Your task to perform on an android device: stop showing notifications on the lock screen Image 0: 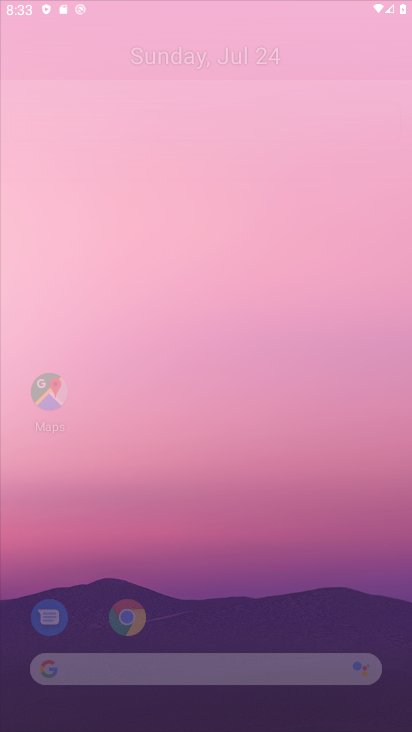
Step 0: click (221, 245)
Your task to perform on an android device: stop showing notifications on the lock screen Image 1: 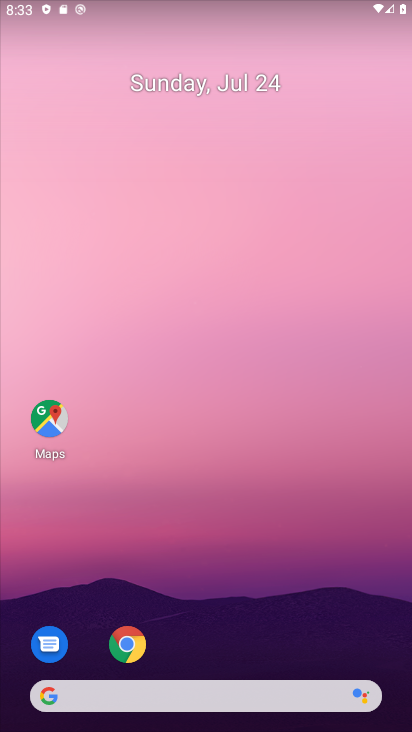
Step 1: drag from (252, 527) to (199, 163)
Your task to perform on an android device: stop showing notifications on the lock screen Image 2: 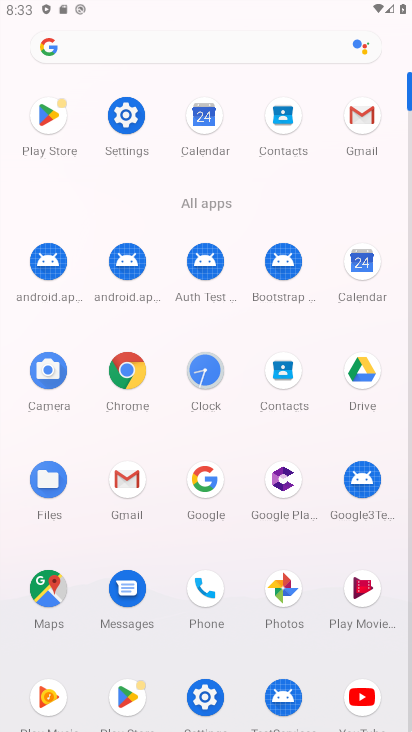
Step 2: drag from (205, 286) to (193, 41)
Your task to perform on an android device: stop showing notifications on the lock screen Image 3: 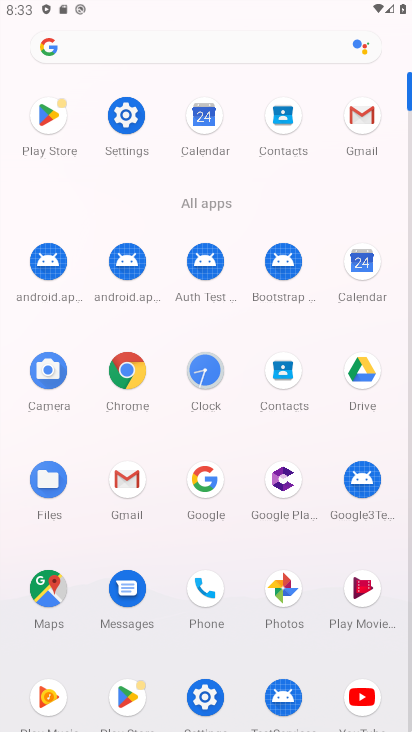
Step 3: click (203, 372)
Your task to perform on an android device: stop showing notifications on the lock screen Image 4: 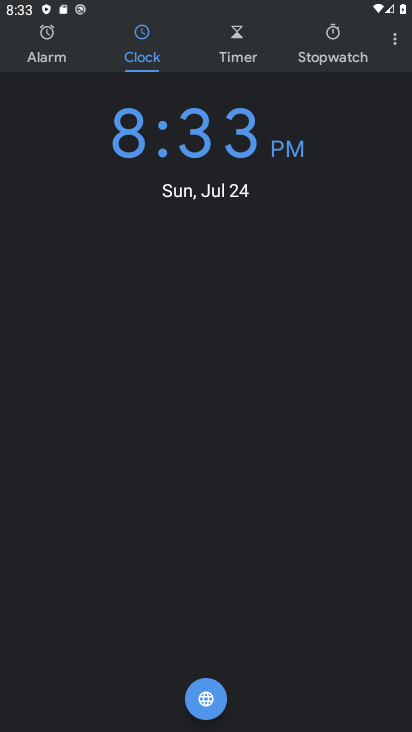
Step 4: press back button
Your task to perform on an android device: stop showing notifications on the lock screen Image 5: 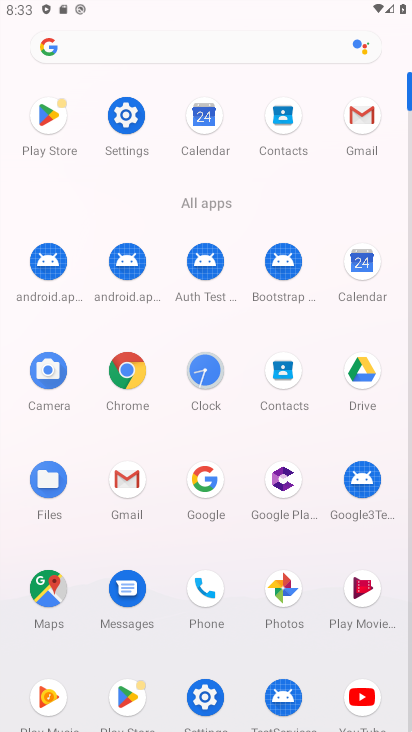
Step 5: click (118, 109)
Your task to perform on an android device: stop showing notifications on the lock screen Image 6: 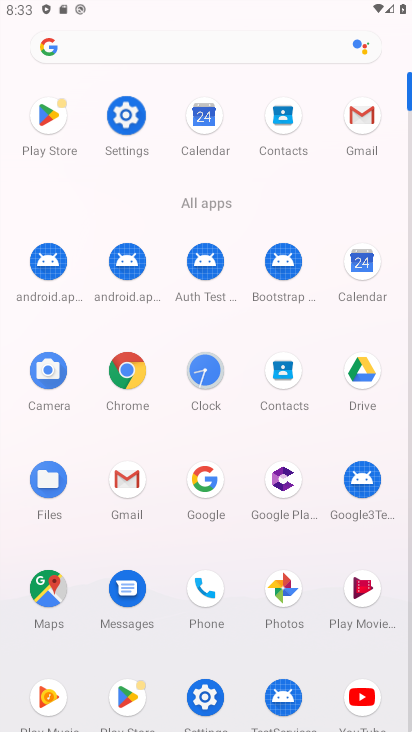
Step 6: click (119, 109)
Your task to perform on an android device: stop showing notifications on the lock screen Image 7: 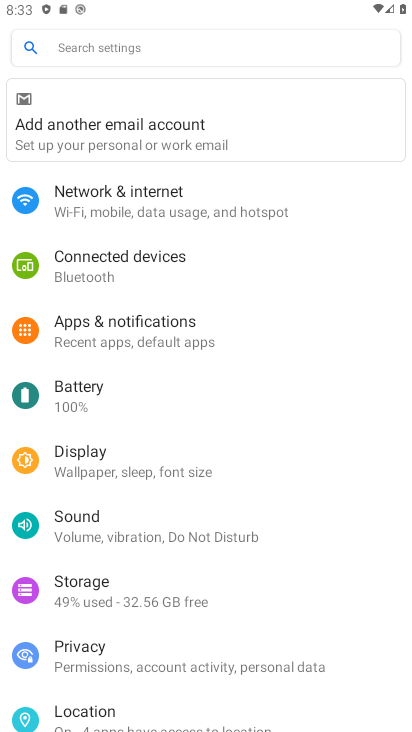
Step 7: click (100, 333)
Your task to perform on an android device: stop showing notifications on the lock screen Image 8: 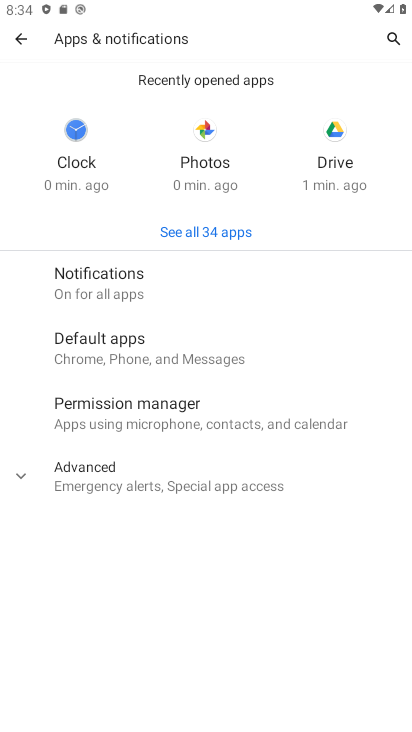
Step 8: click (93, 279)
Your task to perform on an android device: stop showing notifications on the lock screen Image 9: 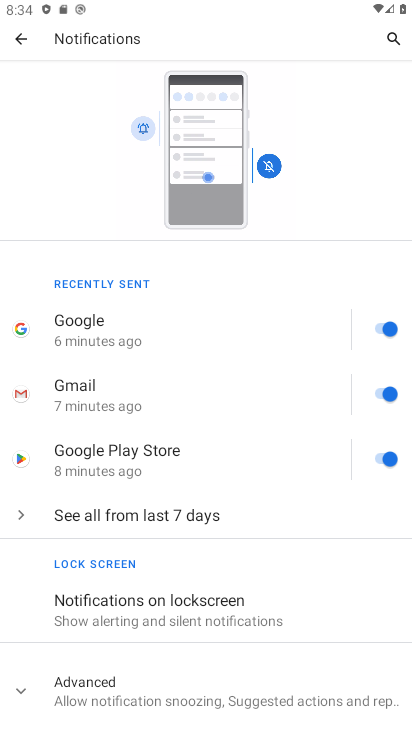
Step 9: drag from (234, 592) to (204, 421)
Your task to perform on an android device: stop showing notifications on the lock screen Image 10: 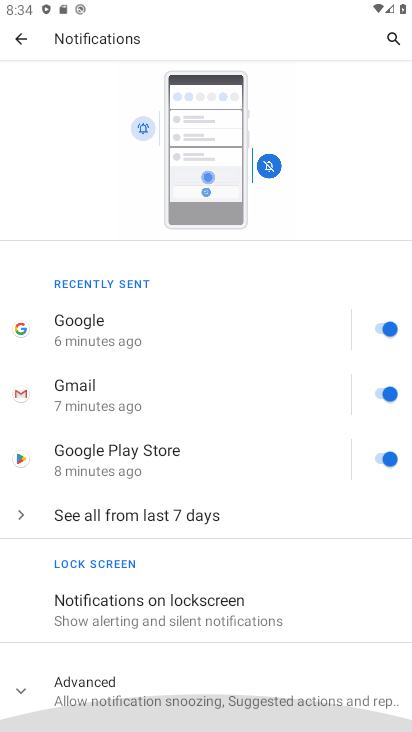
Step 10: drag from (184, 551) to (194, 460)
Your task to perform on an android device: stop showing notifications on the lock screen Image 11: 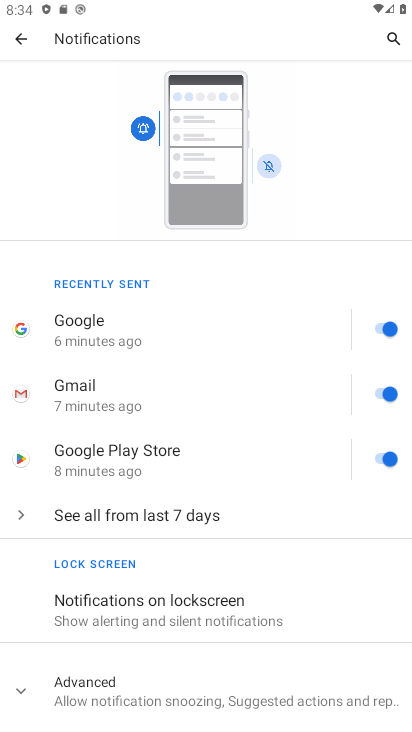
Step 11: click (185, 591)
Your task to perform on an android device: stop showing notifications on the lock screen Image 12: 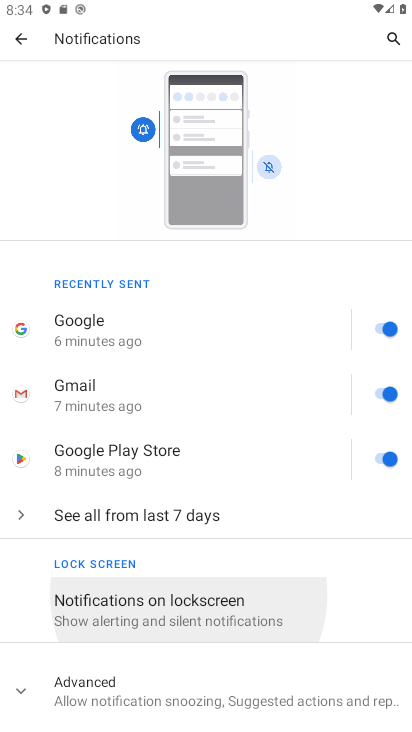
Step 12: click (185, 591)
Your task to perform on an android device: stop showing notifications on the lock screen Image 13: 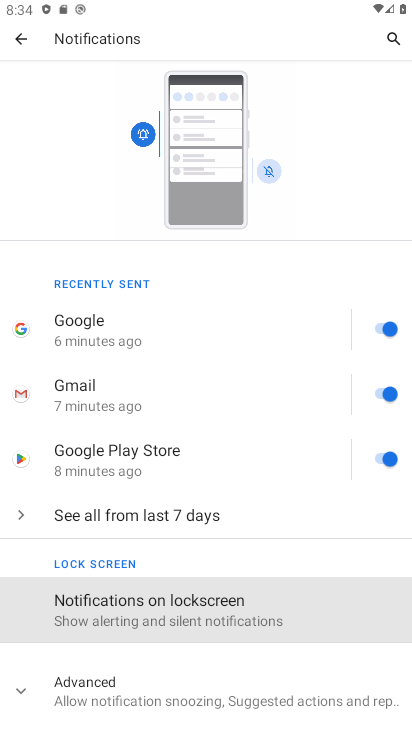
Step 13: click (186, 592)
Your task to perform on an android device: stop showing notifications on the lock screen Image 14: 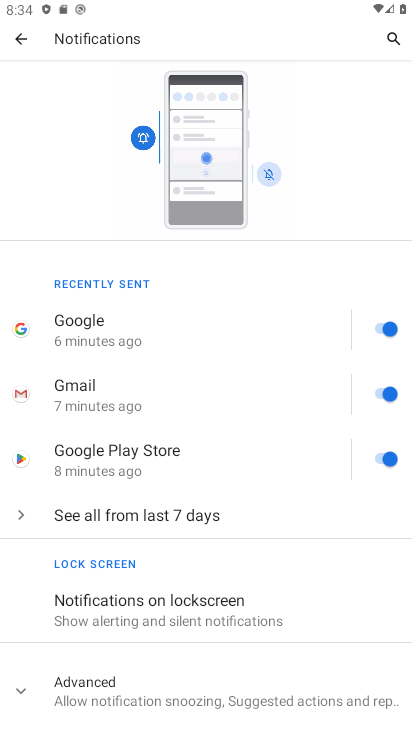
Step 14: click (99, 610)
Your task to perform on an android device: stop showing notifications on the lock screen Image 15: 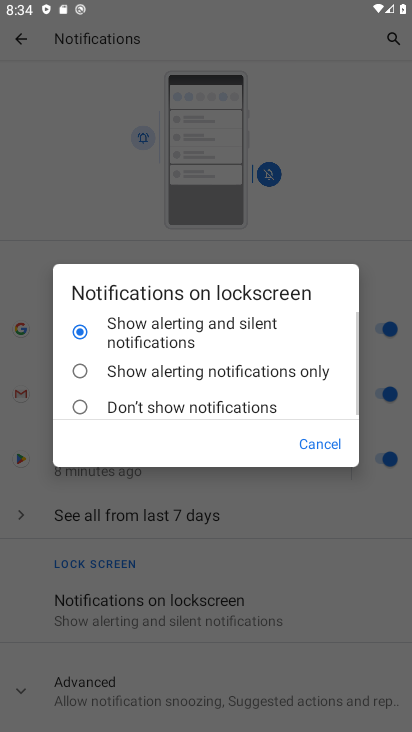
Step 15: click (73, 372)
Your task to perform on an android device: stop showing notifications on the lock screen Image 16: 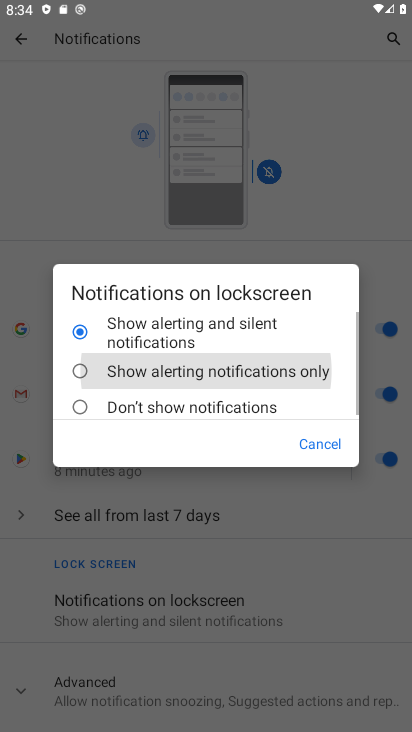
Step 16: click (73, 372)
Your task to perform on an android device: stop showing notifications on the lock screen Image 17: 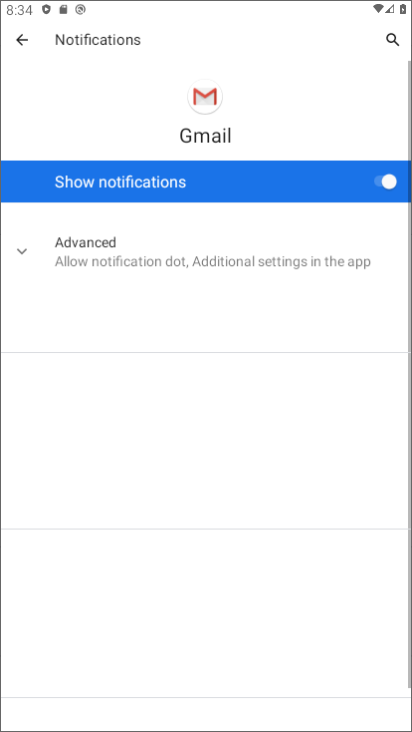
Step 17: click (157, 605)
Your task to perform on an android device: stop showing notifications on the lock screen Image 18: 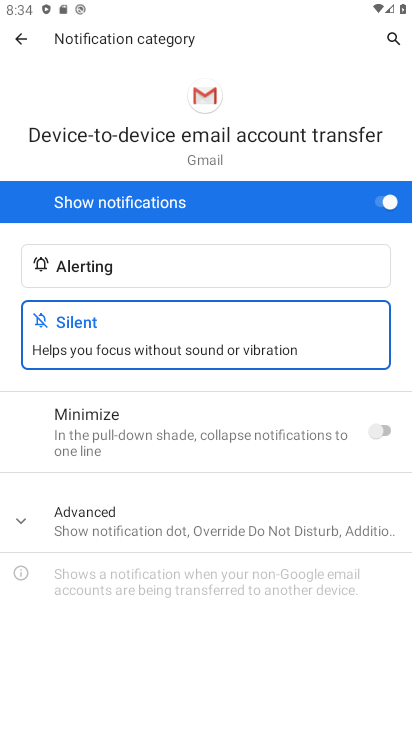
Step 18: click (12, 42)
Your task to perform on an android device: stop showing notifications on the lock screen Image 19: 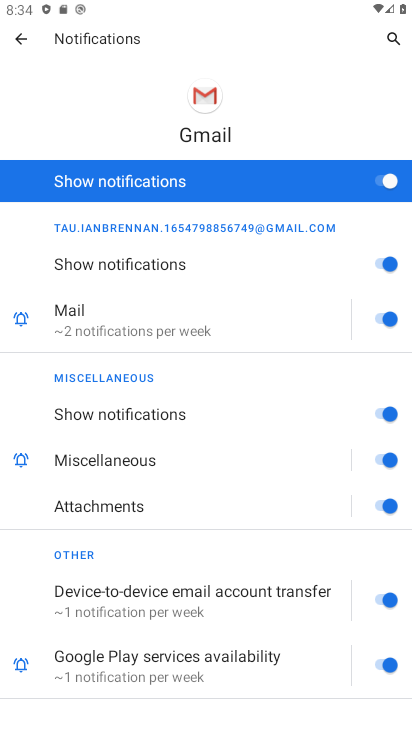
Step 19: click (35, 41)
Your task to perform on an android device: stop showing notifications on the lock screen Image 20: 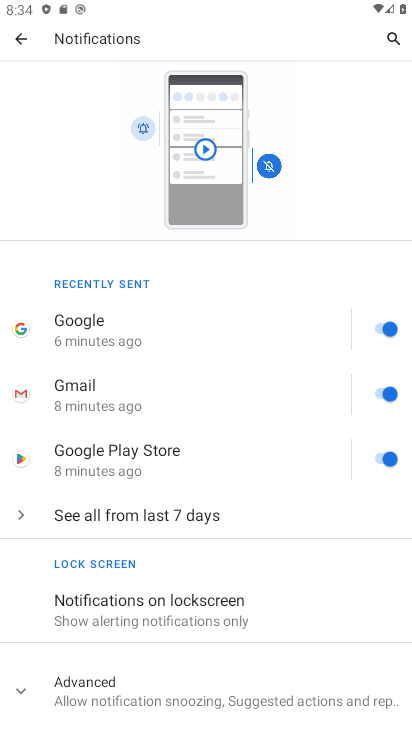
Step 20: click (100, 684)
Your task to perform on an android device: stop showing notifications on the lock screen Image 21: 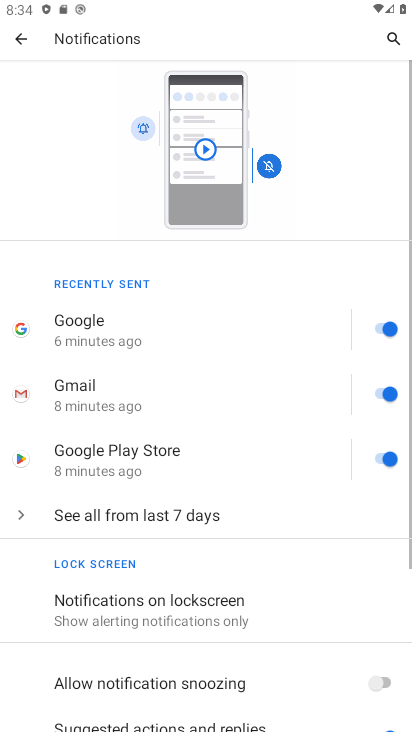
Step 21: click (102, 607)
Your task to perform on an android device: stop showing notifications on the lock screen Image 22: 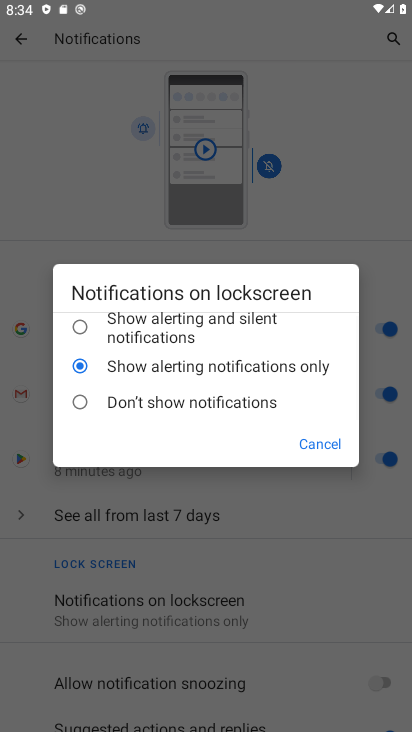
Step 22: click (76, 405)
Your task to perform on an android device: stop showing notifications on the lock screen Image 23: 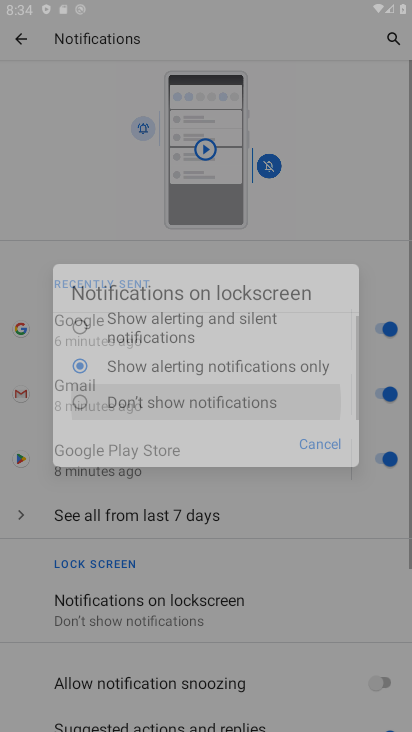
Step 23: click (77, 403)
Your task to perform on an android device: stop showing notifications on the lock screen Image 24: 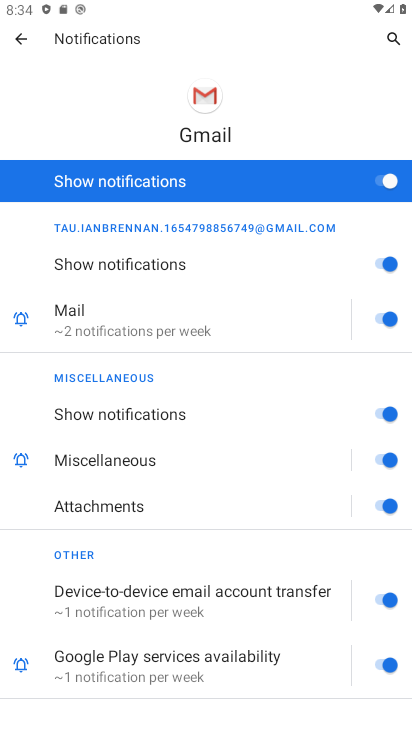
Step 24: task complete